Your task to perform on an android device: Go to Google maps Image 0: 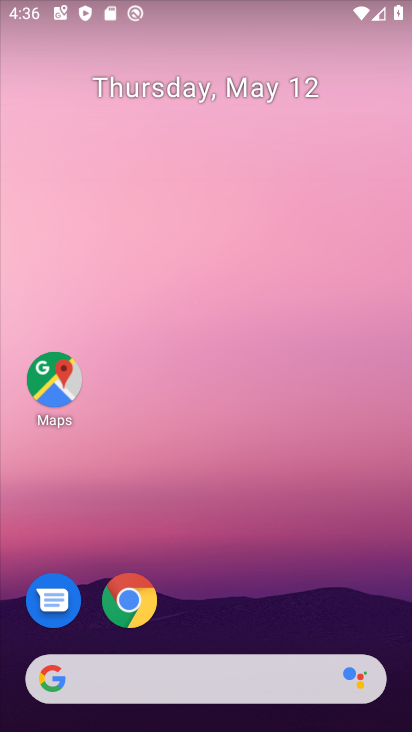
Step 0: drag from (231, 623) to (308, 98)
Your task to perform on an android device: Go to Google maps Image 1: 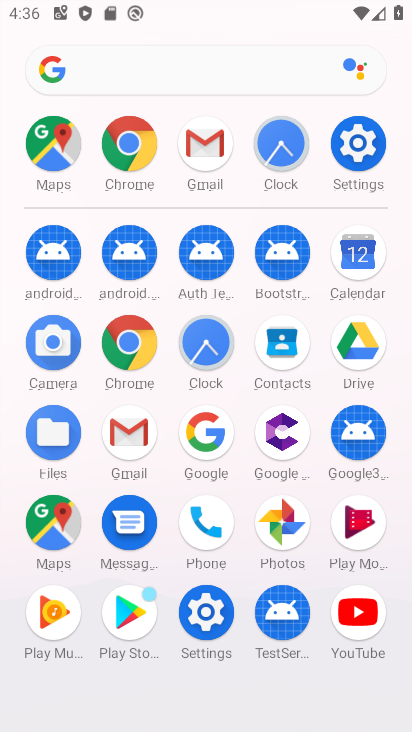
Step 1: click (54, 507)
Your task to perform on an android device: Go to Google maps Image 2: 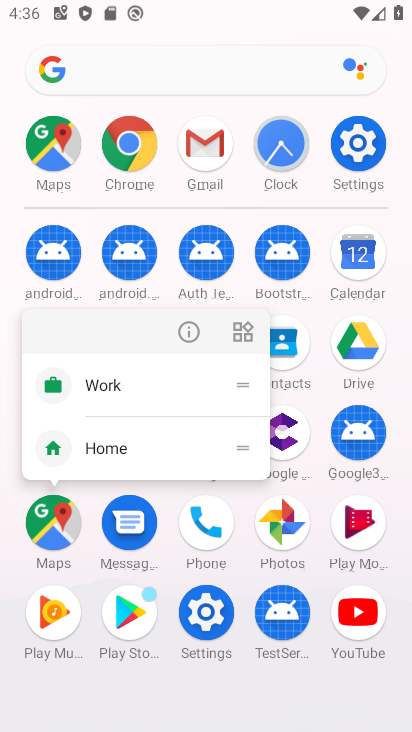
Step 2: click (192, 326)
Your task to perform on an android device: Go to Google maps Image 3: 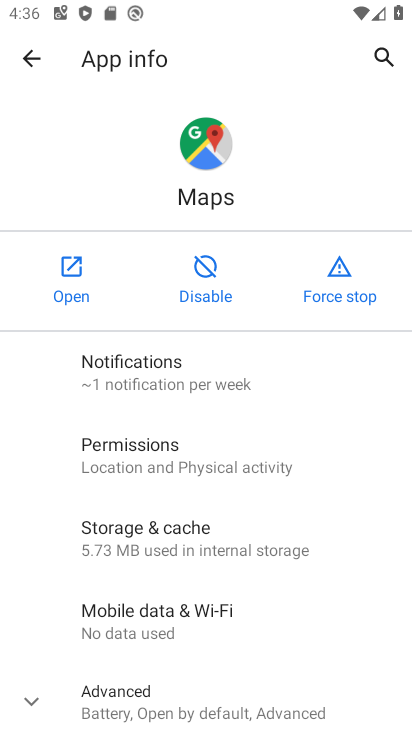
Step 3: click (77, 274)
Your task to perform on an android device: Go to Google maps Image 4: 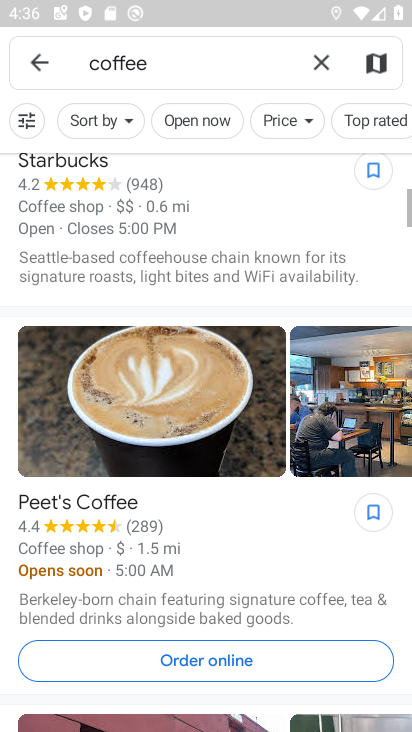
Step 4: task complete